Your task to perform on an android device: Open internet settings Image 0: 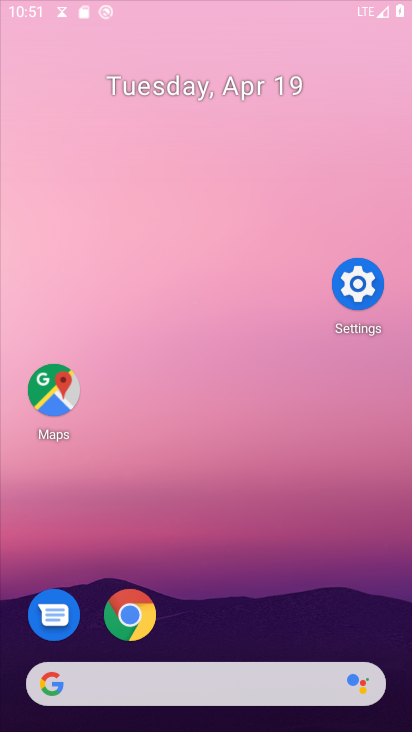
Step 0: drag from (234, 198) to (237, 155)
Your task to perform on an android device: Open internet settings Image 1: 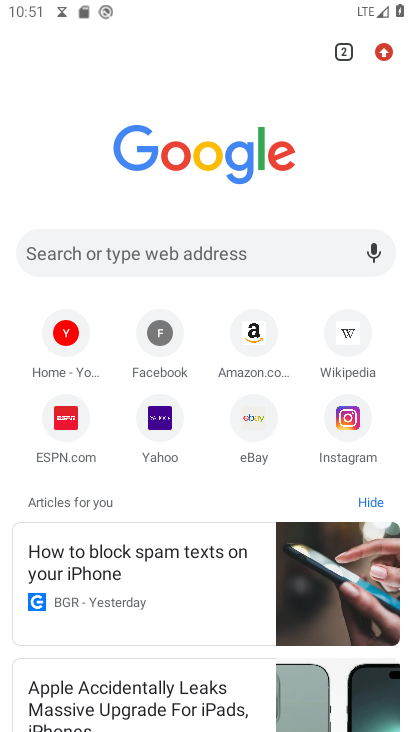
Step 1: press home button
Your task to perform on an android device: Open internet settings Image 2: 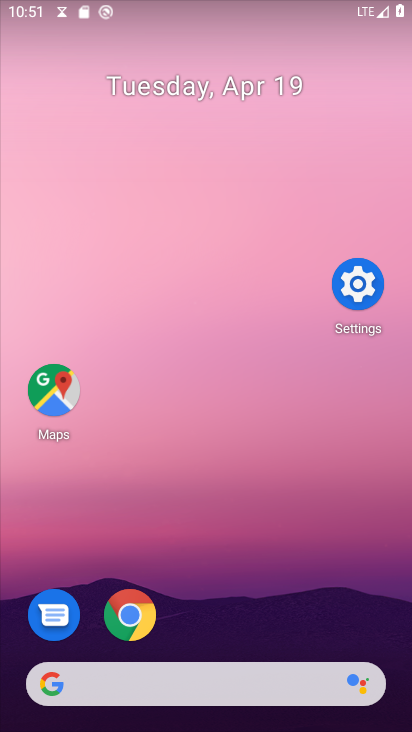
Step 2: drag from (214, 626) to (218, 393)
Your task to perform on an android device: Open internet settings Image 3: 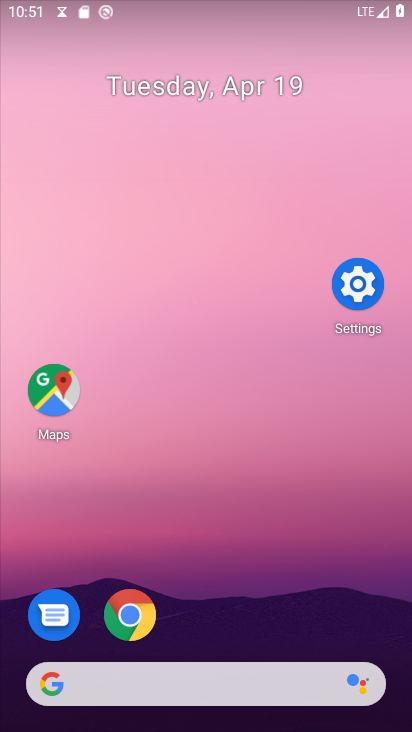
Step 3: drag from (207, 505) to (240, 251)
Your task to perform on an android device: Open internet settings Image 4: 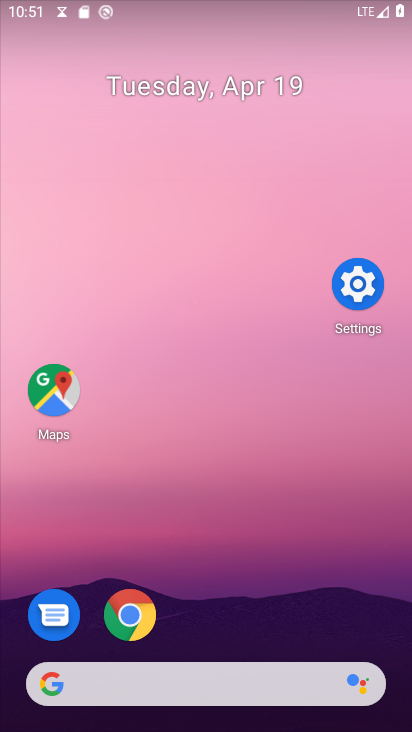
Step 4: click (347, 299)
Your task to perform on an android device: Open internet settings Image 5: 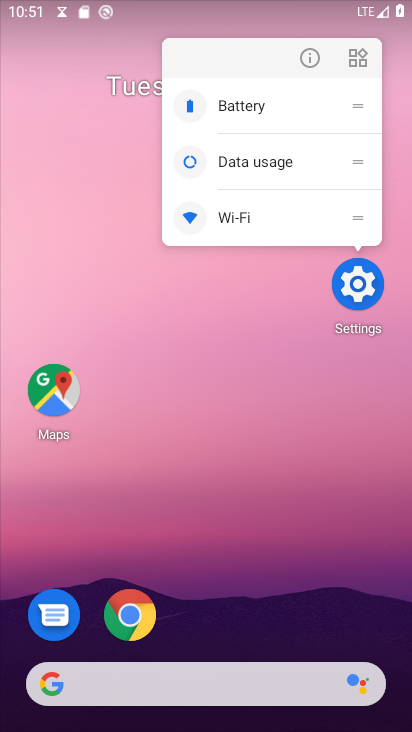
Step 5: click (320, 56)
Your task to perform on an android device: Open internet settings Image 6: 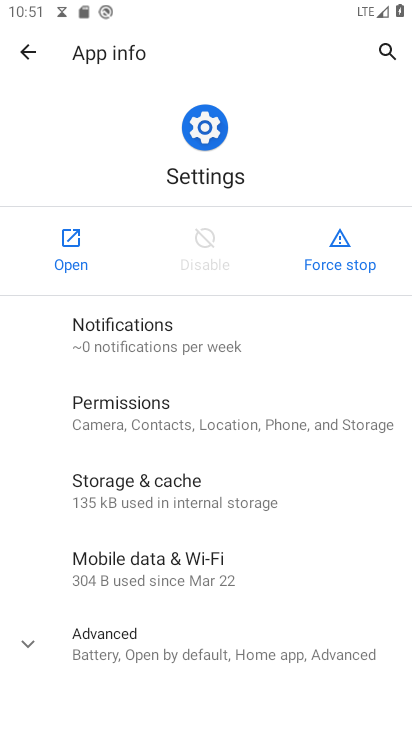
Step 6: click (60, 255)
Your task to perform on an android device: Open internet settings Image 7: 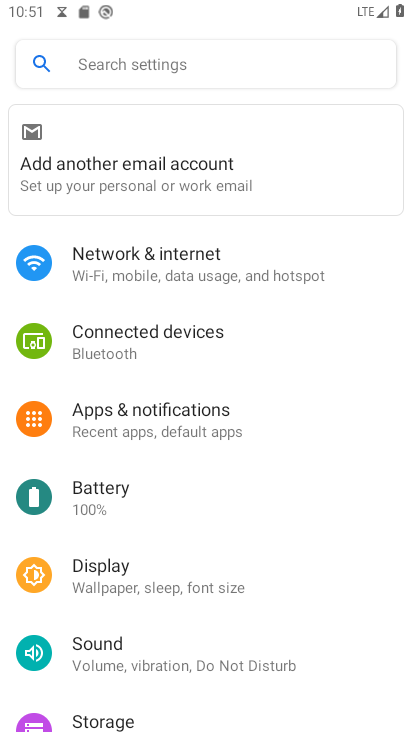
Step 7: click (162, 261)
Your task to perform on an android device: Open internet settings Image 8: 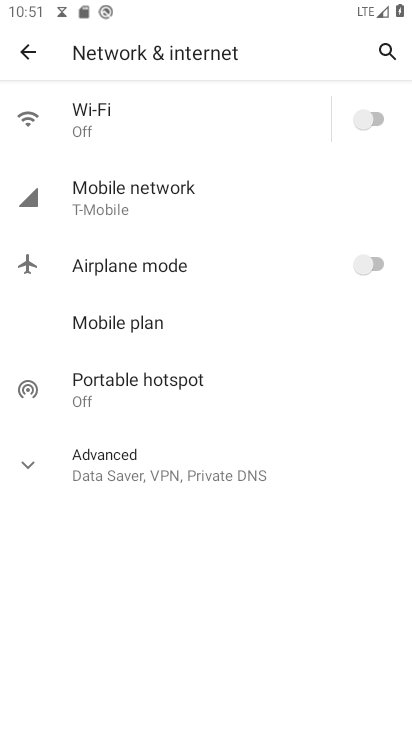
Step 8: task complete